Your task to perform on an android device: What's on my calendar tomorrow? Image 0: 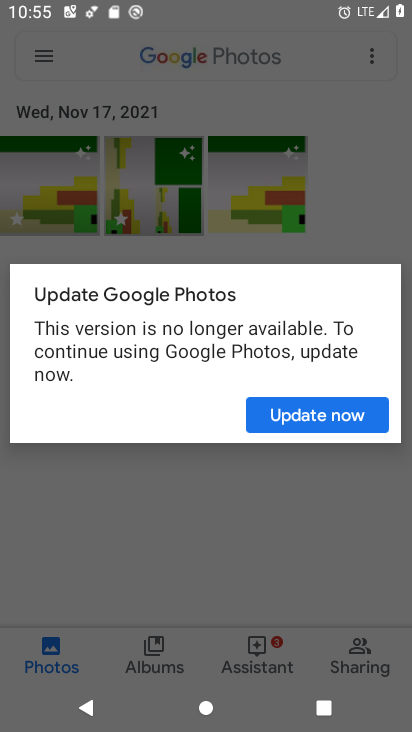
Step 0: press home button
Your task to perform on an android device: What's on my calendar tomorrow? Image 1: 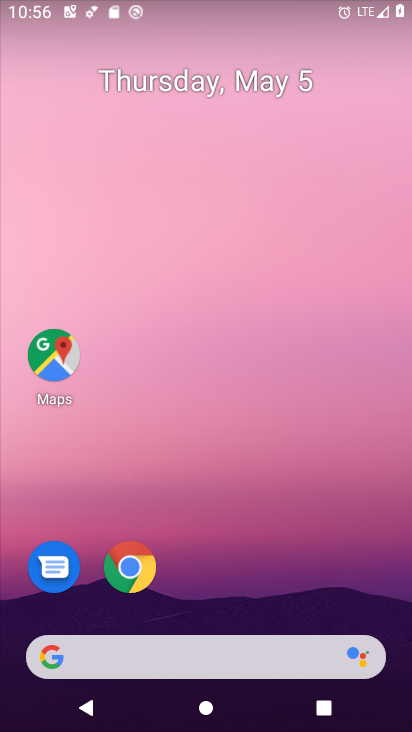
Step 1: drag from (272, 554) to (272, 165)
Your task to perform on an android device: What's on my calendar tomorrow? Image 2: 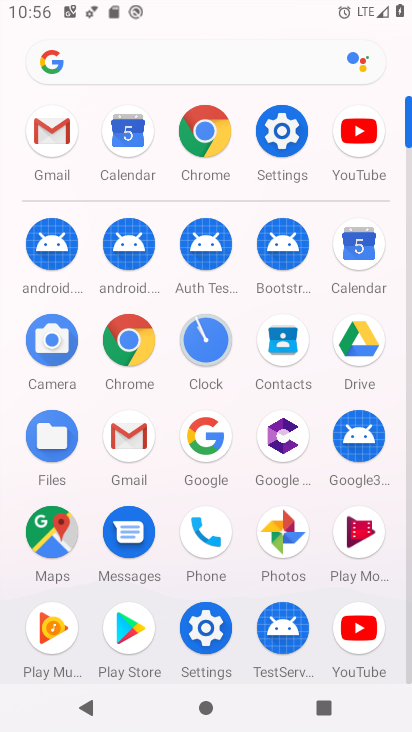
Step 2: click (138, 145)
Your task to perform on an android device: What's on my calendar tomorrow? Image 3: 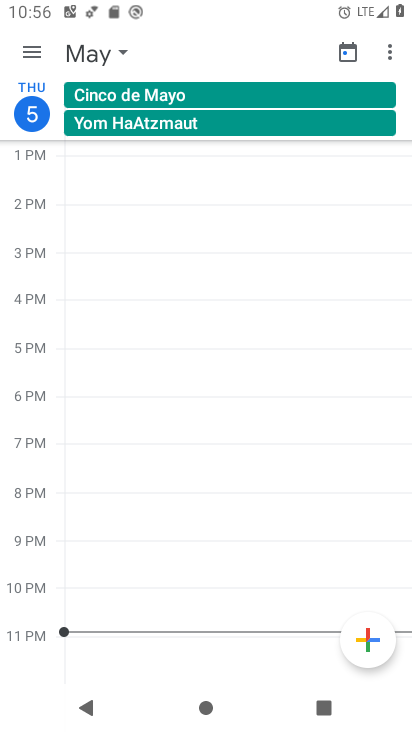
Step 3: click (31, 52)
Your task to perform on an android device: What's on my calendar tomorrow? Image 4: 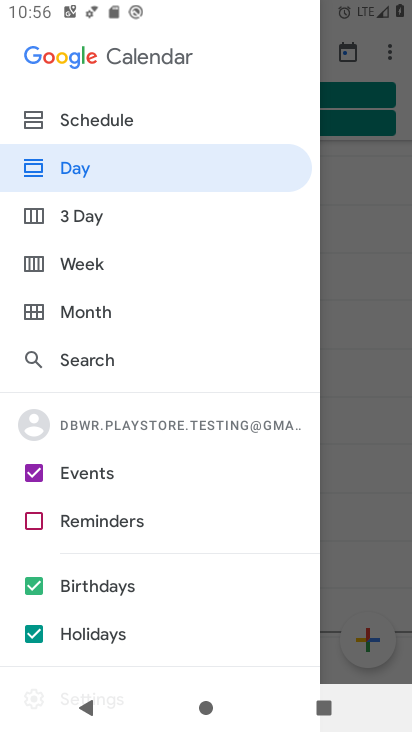
Step 4: click (106, 128)
Your task to perform on an android device: What's on my calendar tomorrow? Image 5: 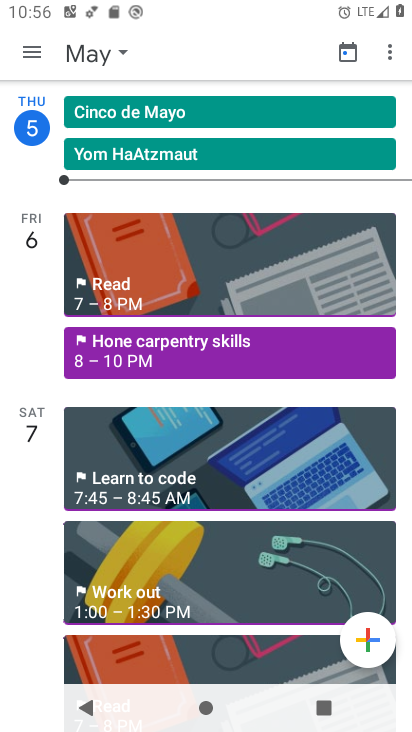
Step 5: click (120, 59)
Your task to perform on an android device: What's on my calendar tomorrow? Image 6: 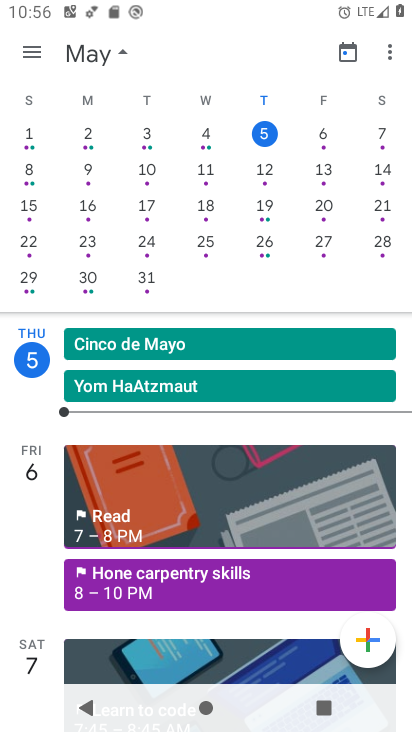
Step 6: click (387, 131)
Your task to perform on an android device: What's on my calendar tomorrow? Image 7: 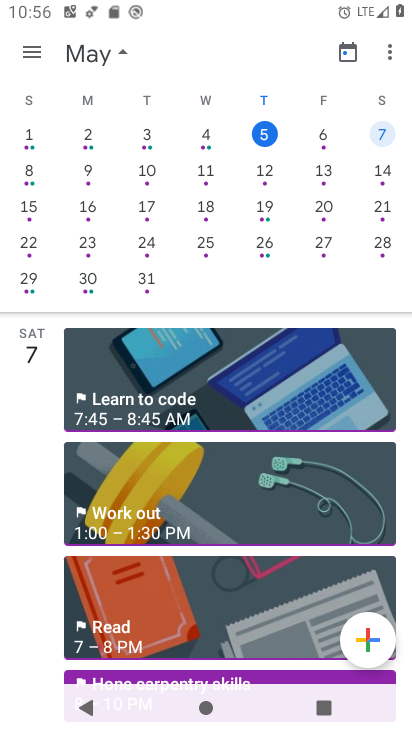
Step 7: click (384, 131)
Your task to perform on an android device: What's on my calendar tomorrow? Image 8: 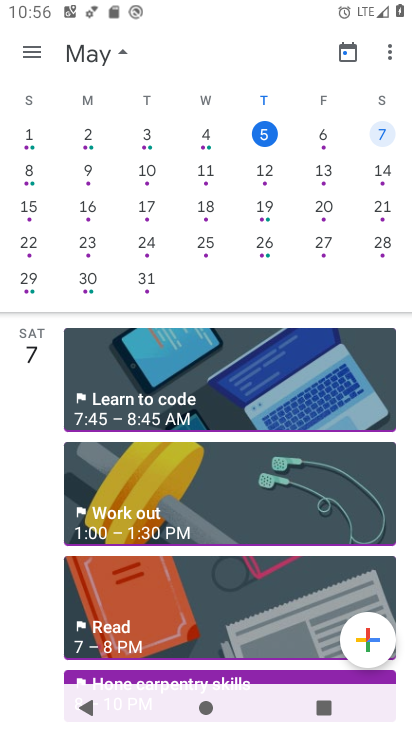
Step 8: click (384, 131)
Your task to perform on an android device: What's on my calendar tomorrow? Image 9: 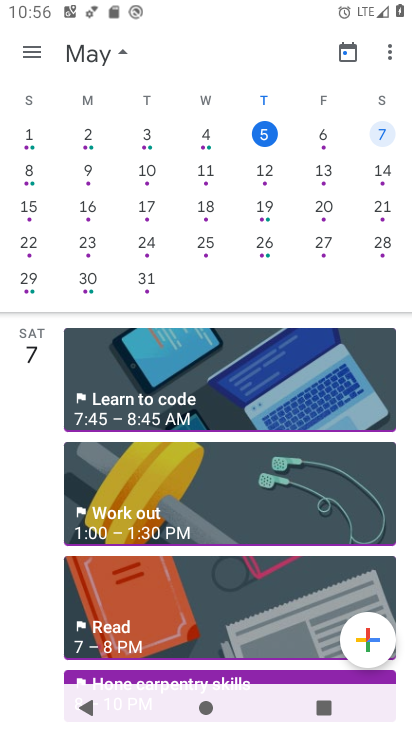
Step 9: click (384, 131)
Your task to perform on an android device: What's on my calendar tomorrow? Image 10: 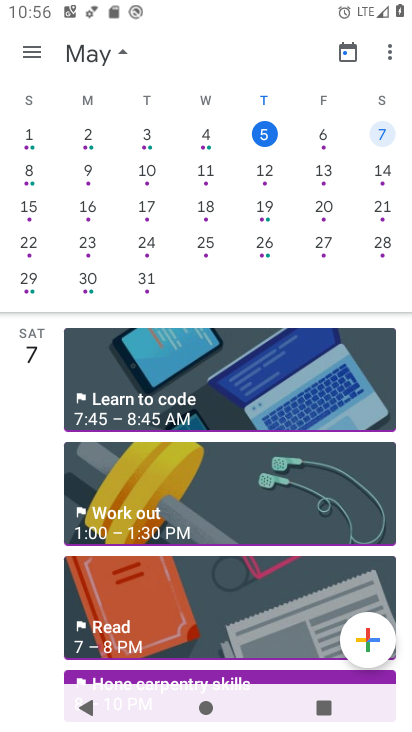
Step 10: click (385, 131)
Your task to perform on an android device: What's on my calendar tomorrow? Image 11: 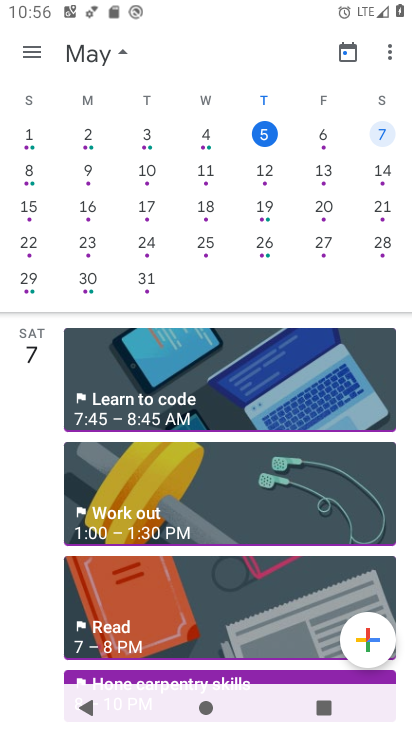
Step 11: click (385, 131)
Your task to perform on an android device: What's on my calendar tomorrow? Image 12: 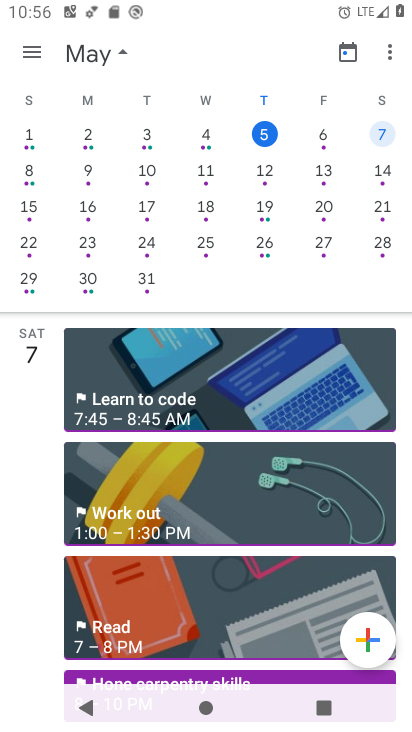
Step 12: click (385, 131)
Your task to perform on an android device: What's on my calendar tomorrow? Image 13: 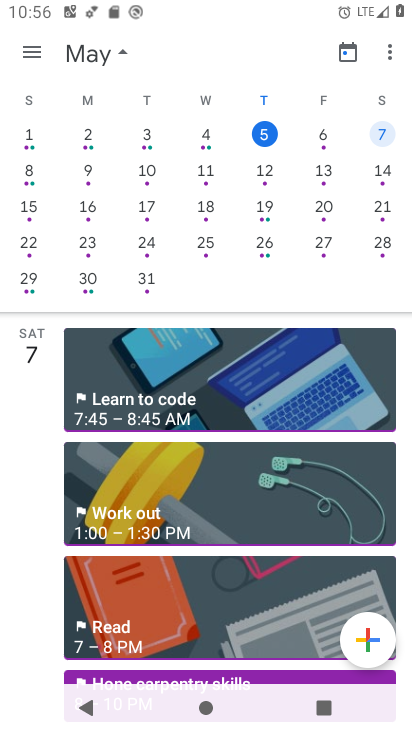
Step 13: task complete